Your task to perform on an android device: change notifications settings Image 0: 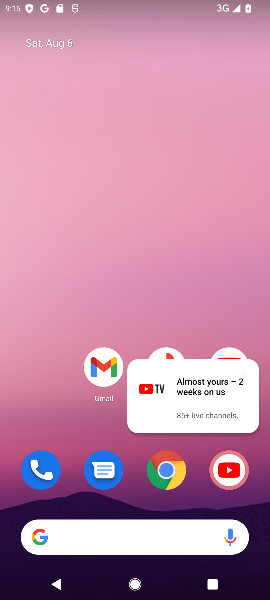
Step 0: click (216, 232)
Your task to perform on an android device: change notifications settings Image 1: 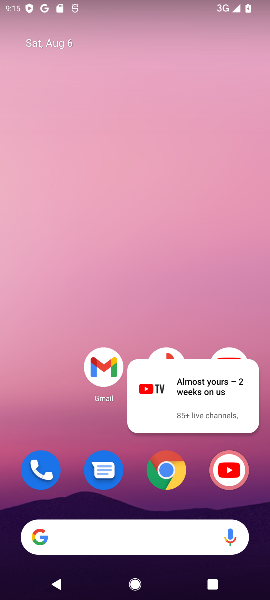
Step 1: drag from (100, 445) to (133, 37)
Your task to perform on an android device: change notifications settings Image 2: 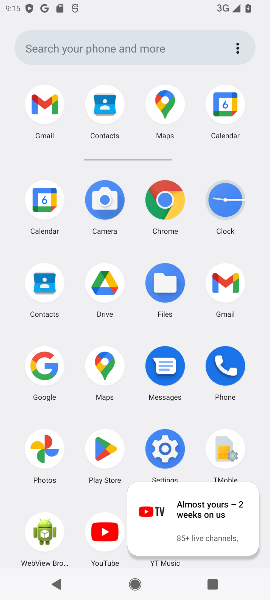
Step 2: drag from (183, 324) to (175, 78)
Your task to perform on an android device: change notifications settings Image 3: 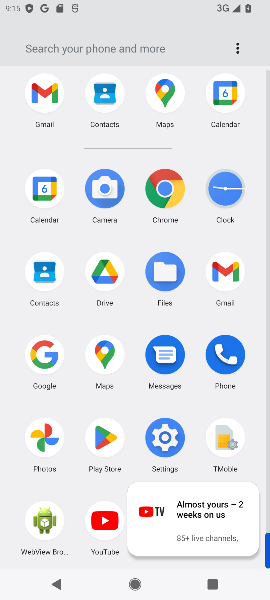
Step 3: click (172, 439)
Your task to perform on an android device: change notifications settings Image 4: 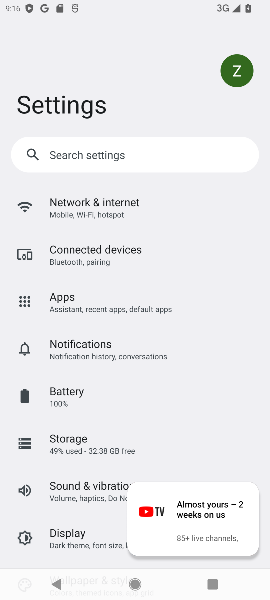
Step 4: click (163, 355)
Your task to perform on an android device: change notifications settings Image 5: 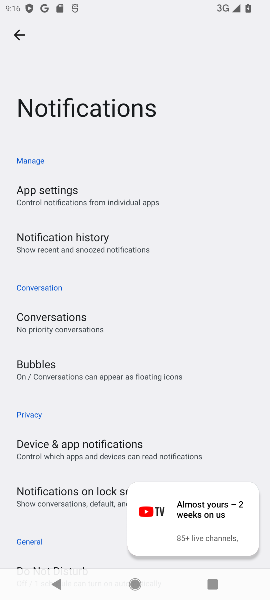
Step 5: drag from (144, 369) to (168, 136)
Your task to perform on an android device: change notifications settings Image 6: 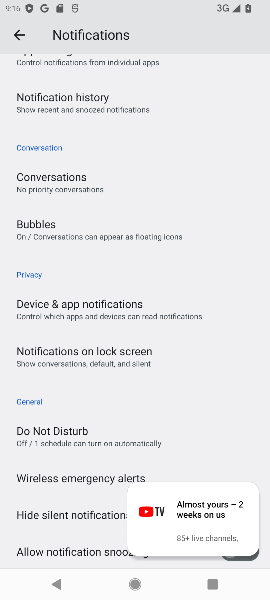
Step 6: click (139, 360)
Your task to perform on an android device: change notifications settings Image 7: 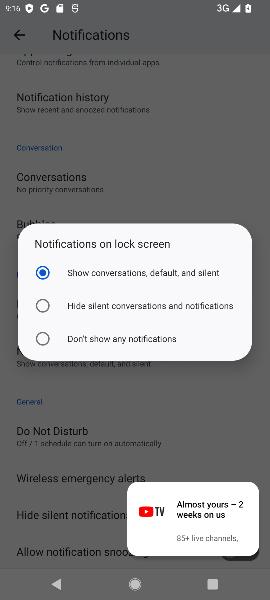
Step 7: click (165, 196)
Your task to perform on an android device: change notifications settings Image 8: 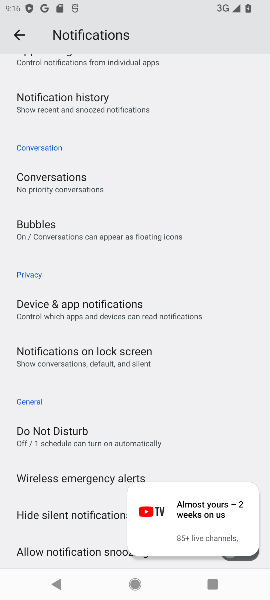
Step 8: drag from (167, 202) to (156, 505)
Your task to perform on an android device: change notifications settings Image 9: 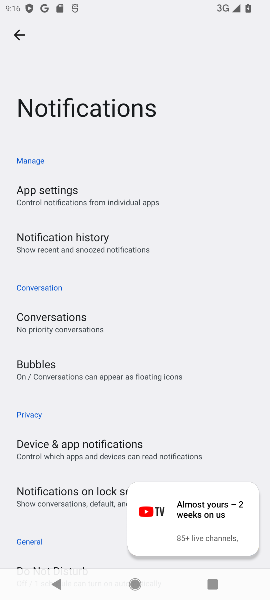
Step 9: click (130, 198)
Your task to perform on an android device: change notifications settings Image 10: 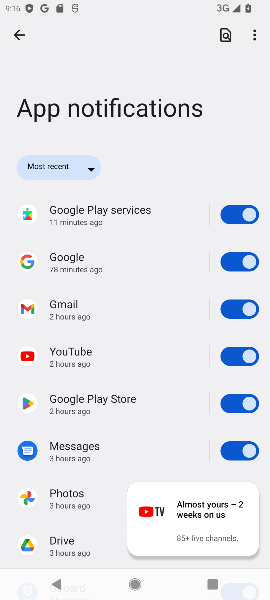
Step 10: click (234, 212)
Your task to perform on an android device: change notifications settings Image 11: 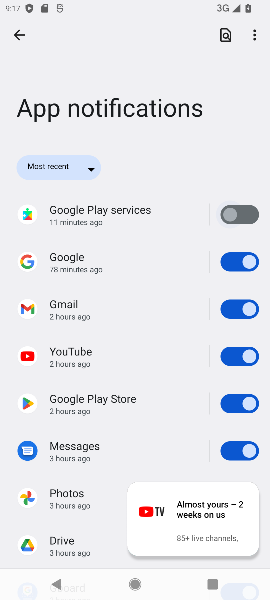
Step 11: task complete